Your task to perform on an android device: open app "LiveIn - Share Your Moment" (install if not already installed) and go to login screen Image 0: 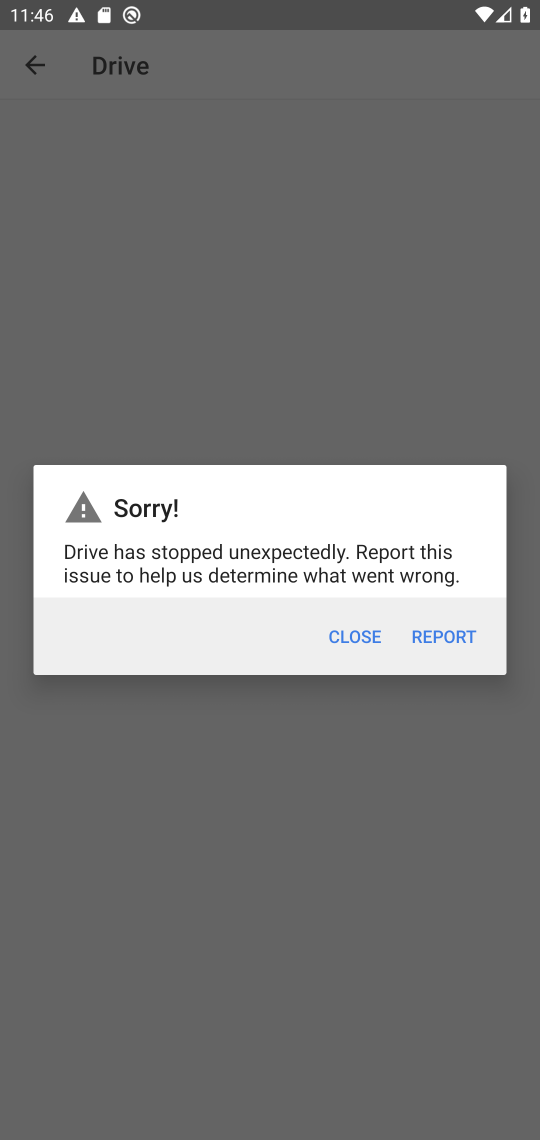
Step 0: press home button
Your task to perform on an android device: open app "LiveIn - Share Your Moment" (install if not already installed) and go to login screen Image 1: 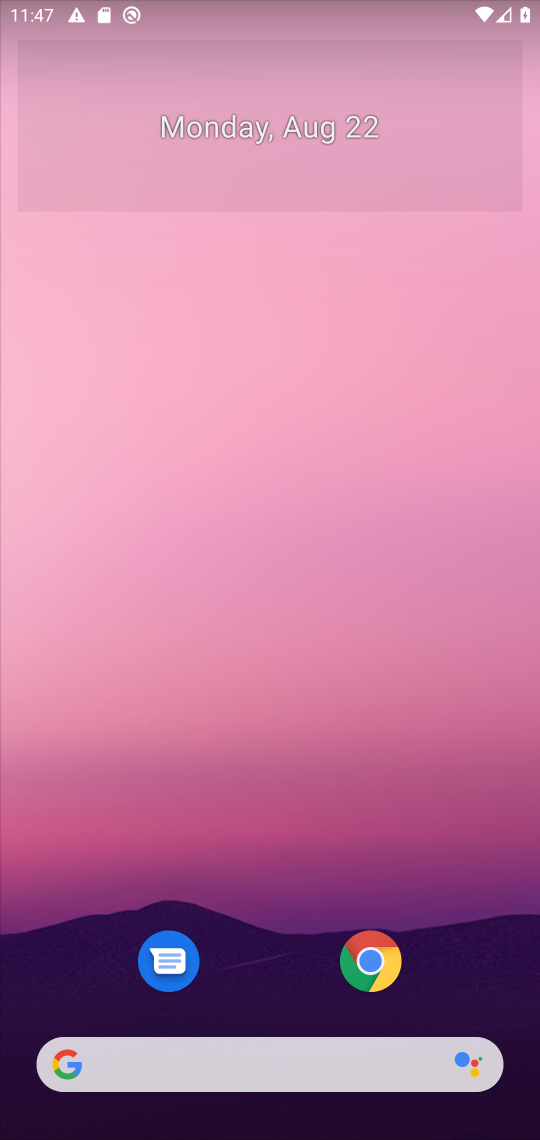
Step 1: drag from (257, 1027) to (298, 21)
Your task to perform on an android device: open app "LiveIn - Share Your Moment" (install if not already installed) and go to login screen Image 2: 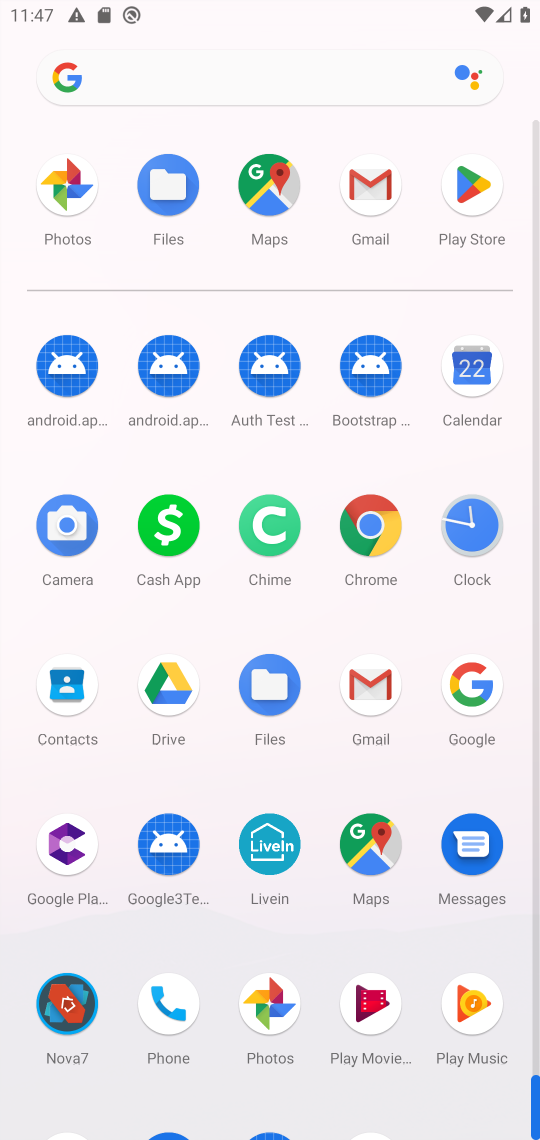
Step 2: click (477, 269)
Your task to perform on an android device: open app "LiveIn - Share Your Moment" (install if not already installed) and go to login screen Image 3: 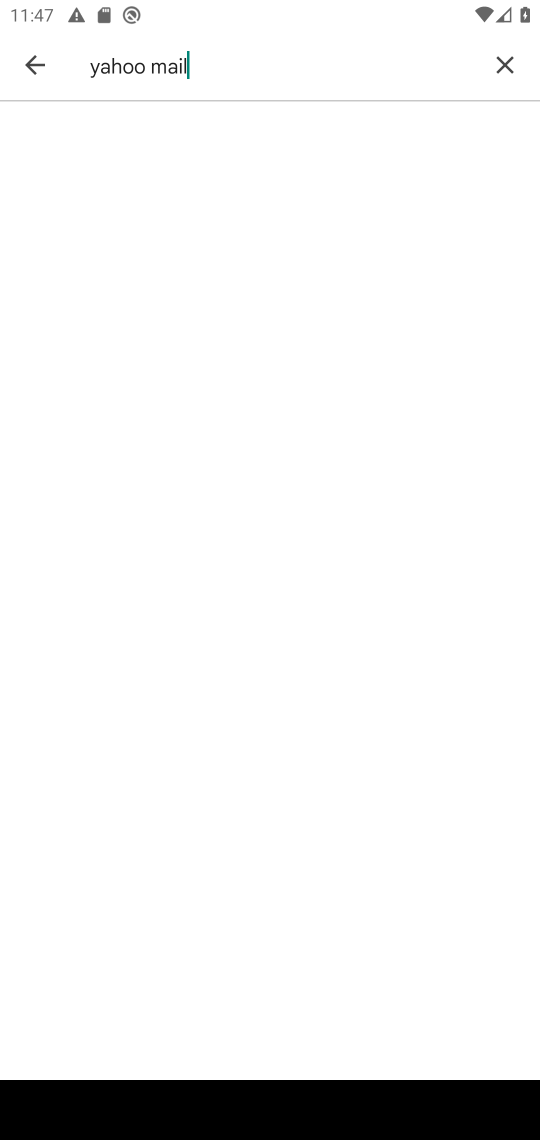
Step 3: click (509, 70)
Your task to perform on an android device: open app "LiveIn - Share Your Moment" (install if not already installed) and go to login screen Image 4: 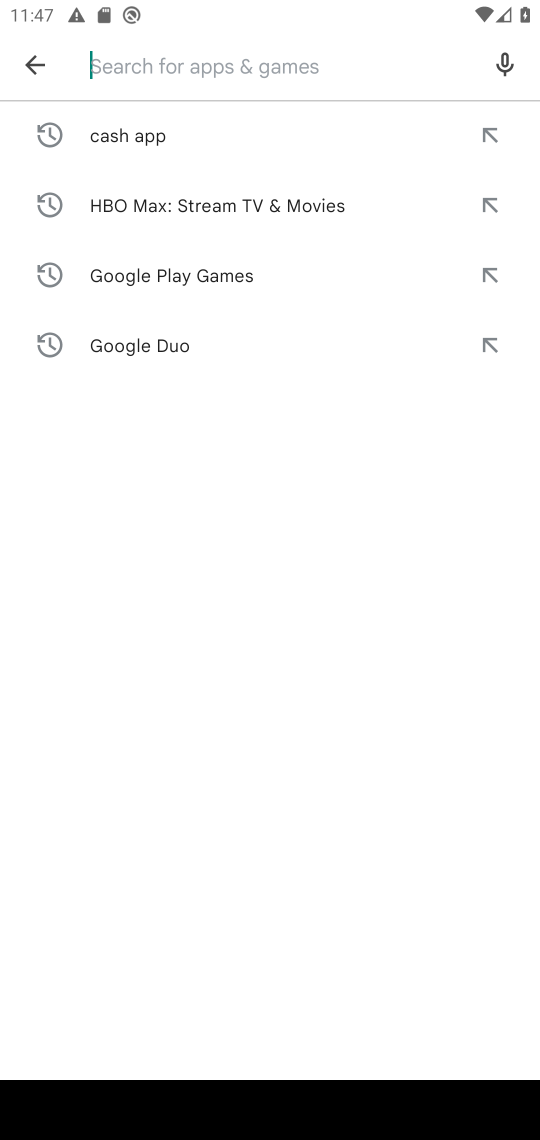
Step 4: type "livein"
Your task to perform on an android device: open app "LiveIn - Share Your Moment" (install if not already installed) and go to login screen Image 5: 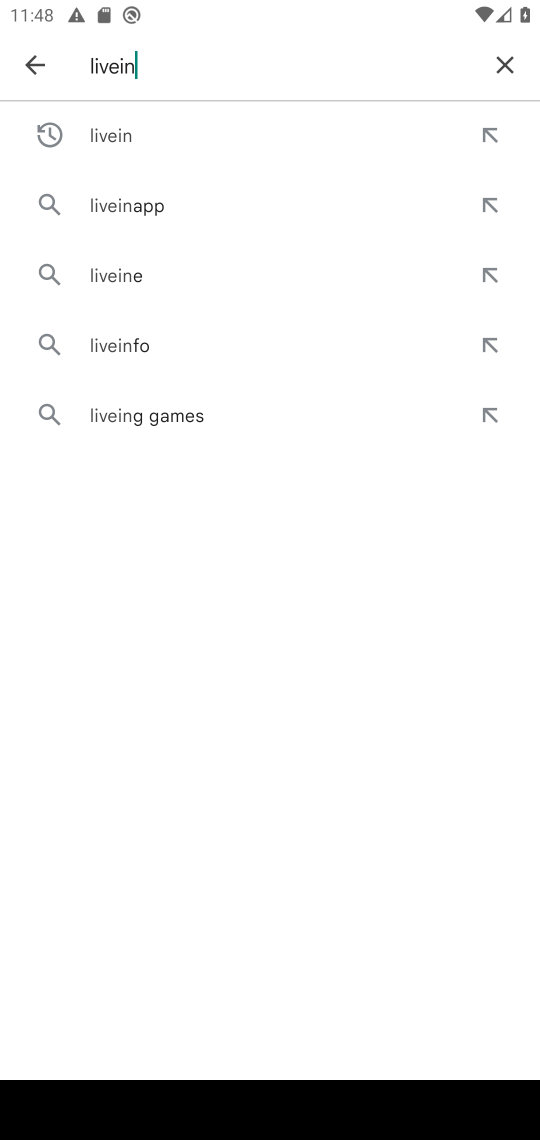
Step 5: click (119, 144)
Your task to perform on an android device: open app "LiveIn - Share Your Moment" (install if not already installed) and go to login screen Image 6: 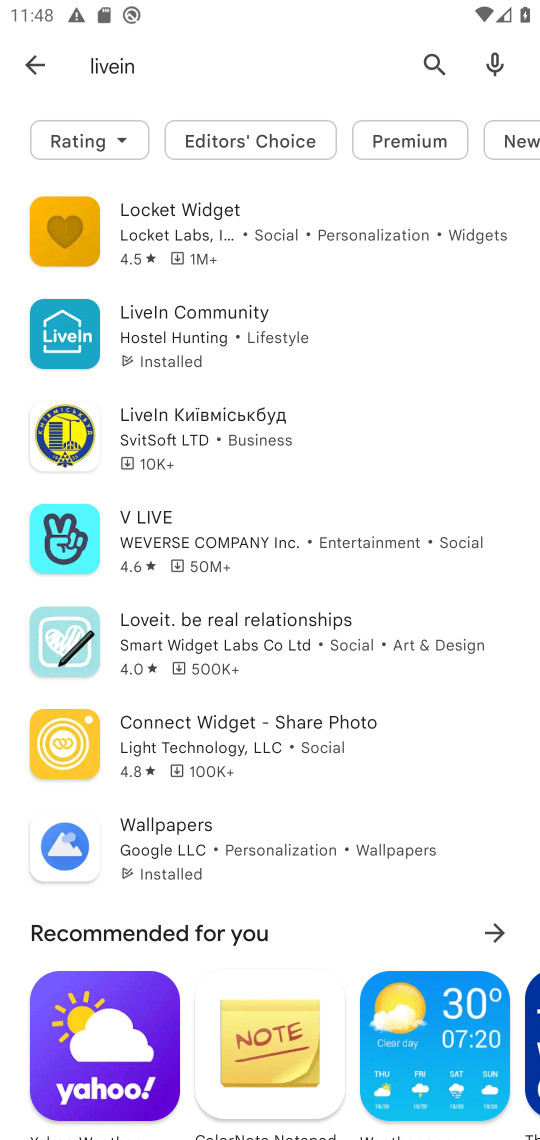
Step 6: task complete